Your task to perform on an android device: Open Google Image 0: 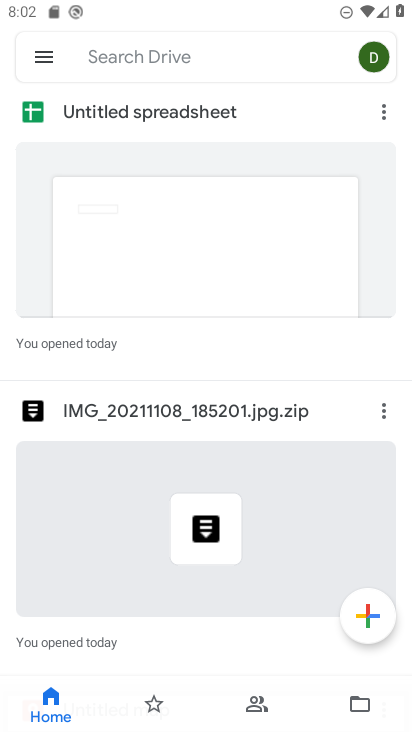
Step 0: press home button
Your task to perform on an android device: Open Google Image 1: 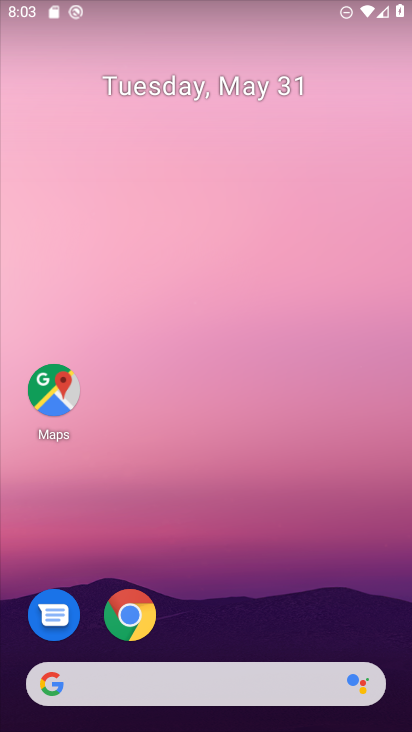
Step 1: drag from (230, 629) to (157, 6)
Your task to perform on an android device: Open Google Image 2: 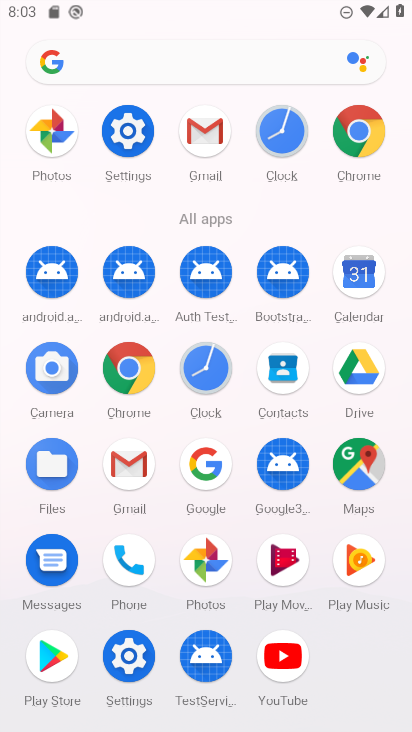
Step 2: click (206, 469)
Your task to perform on an android device: Open Google Image 3: 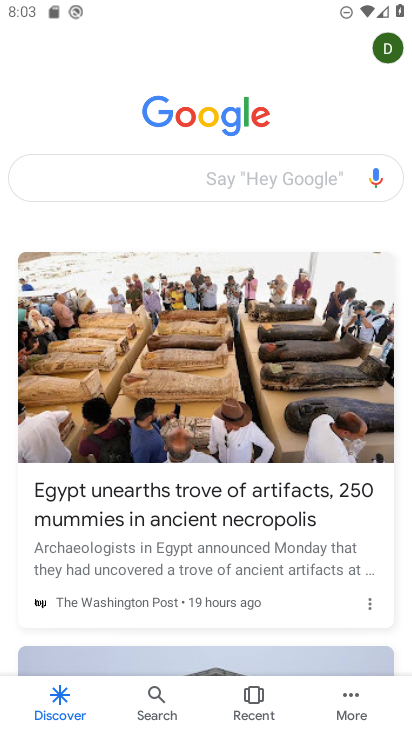
Step 3: task complete